Your task to perform on an android device: install app "eBay: The shopping marketplace" Image 0: 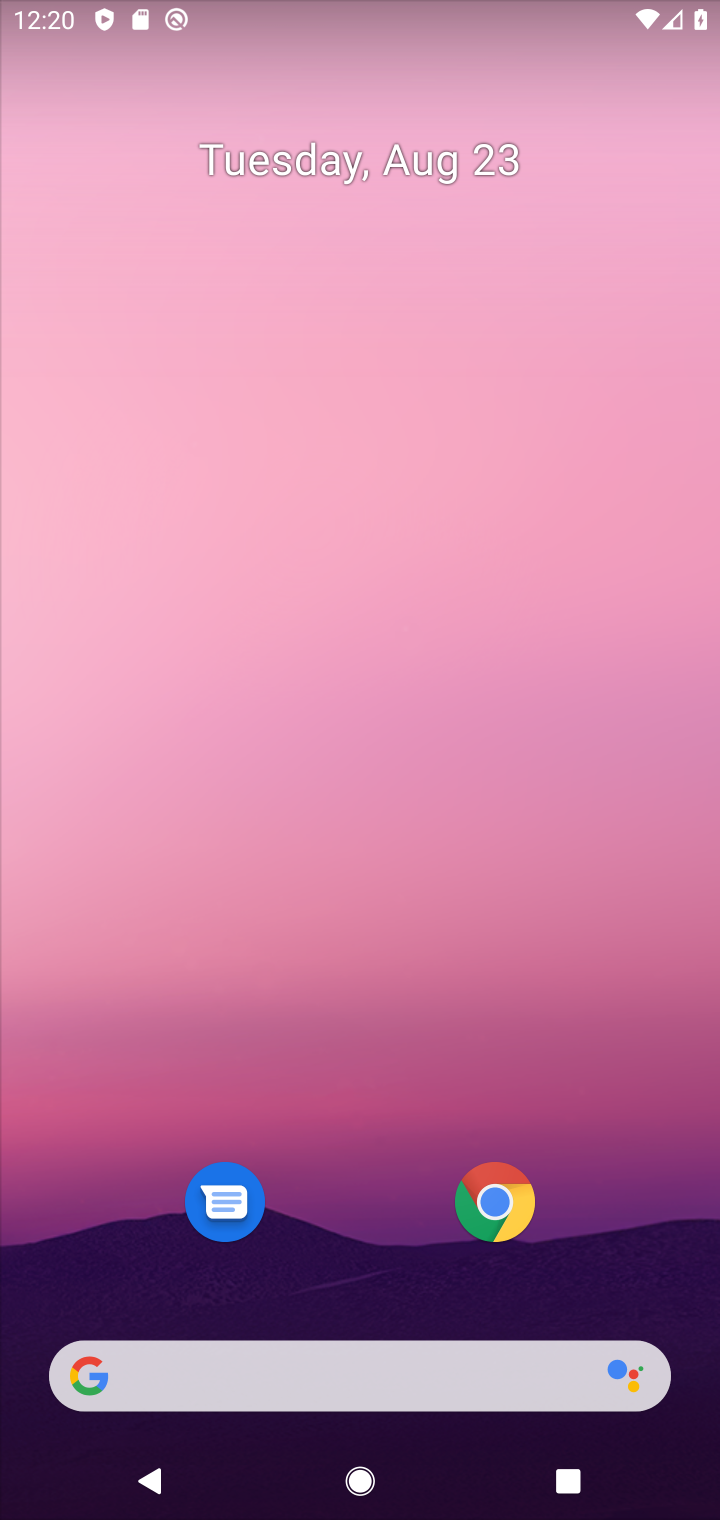
Step 0: drag from (360, 780) to (230, 248)
Your task to perform on an android device: install app "eBay: The shopping marketplace" Image 1: 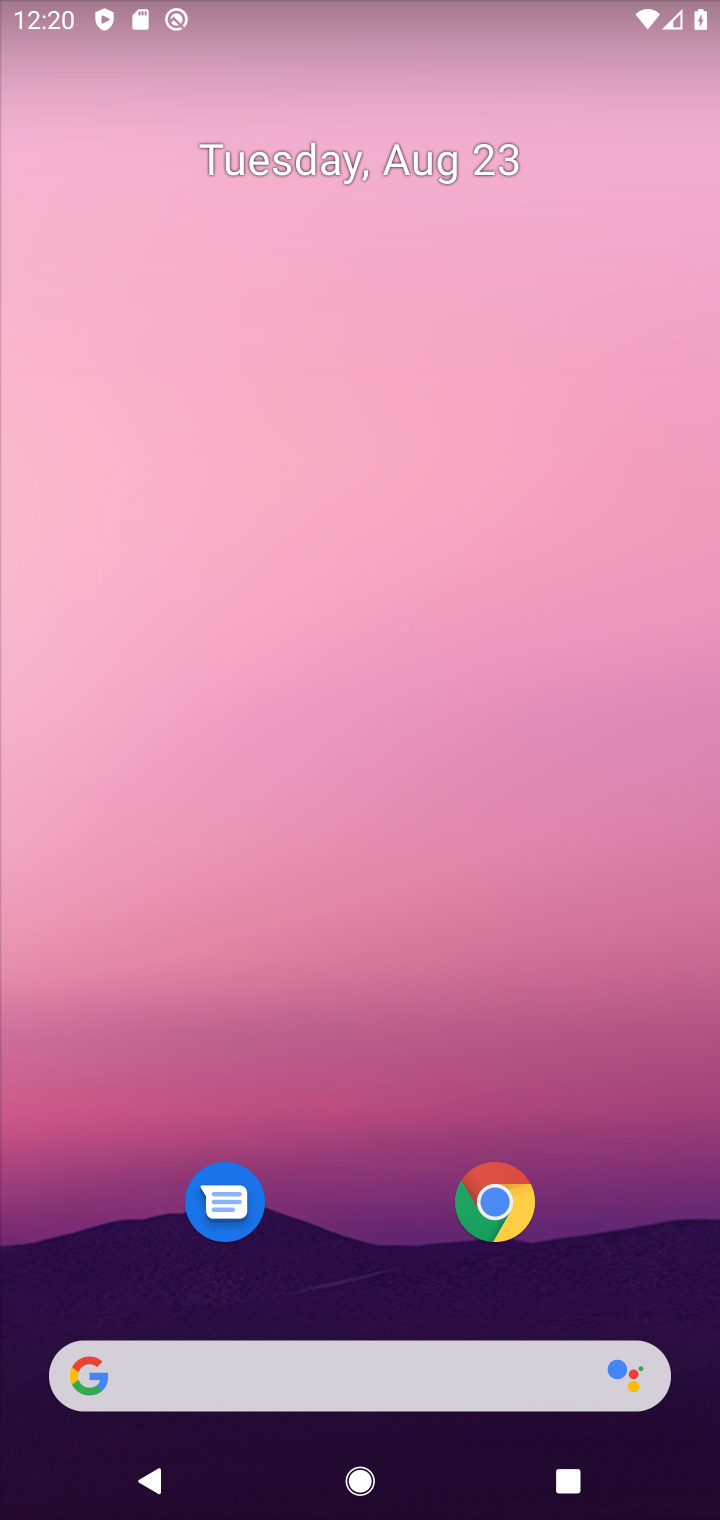
Step 1: drag from (353, 1355) to (181, 239)
Your task to perform on an android device: install app "eBay: The shopping marketplace" Image 2: 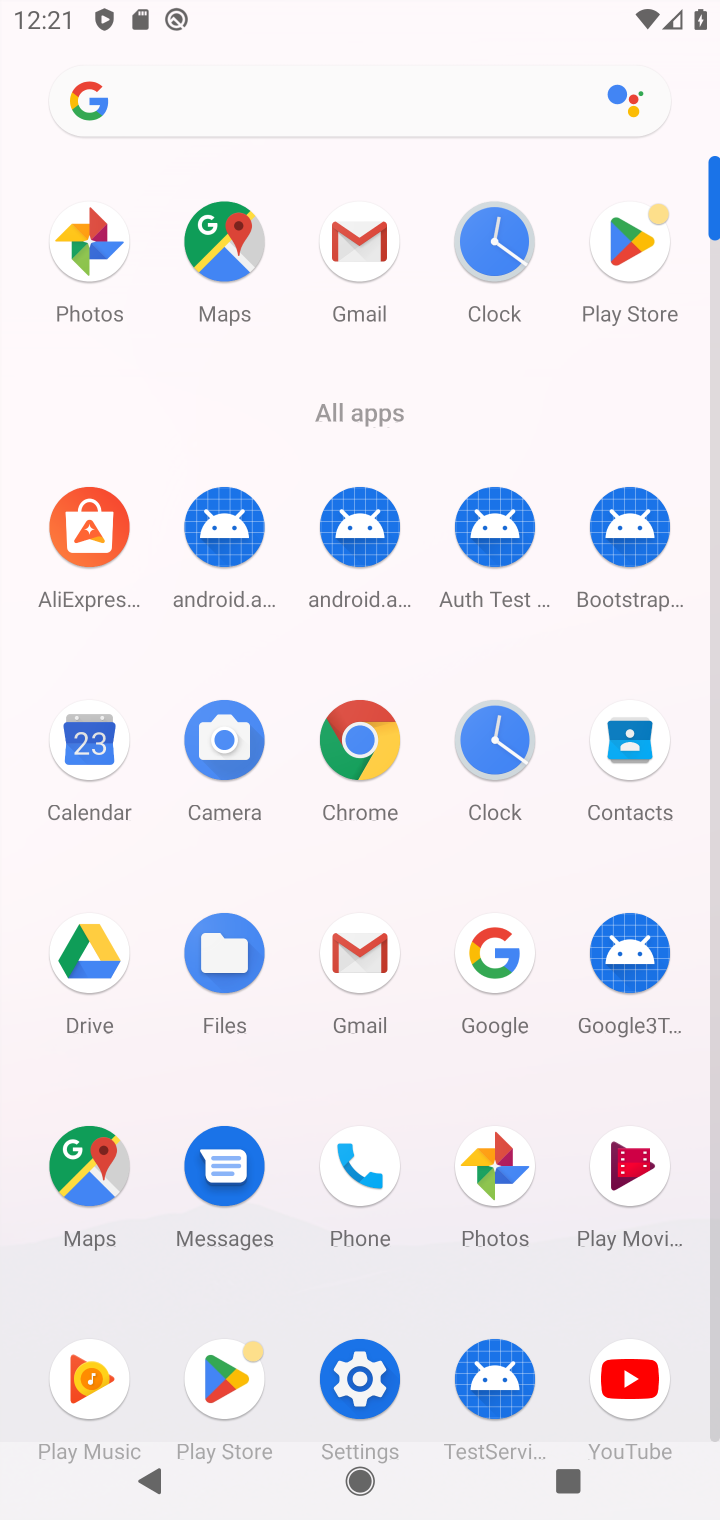
Step 2: click (349, 720)
Your task to perform on an android device: install app "eBay: The shopping marketplace" Image 3: 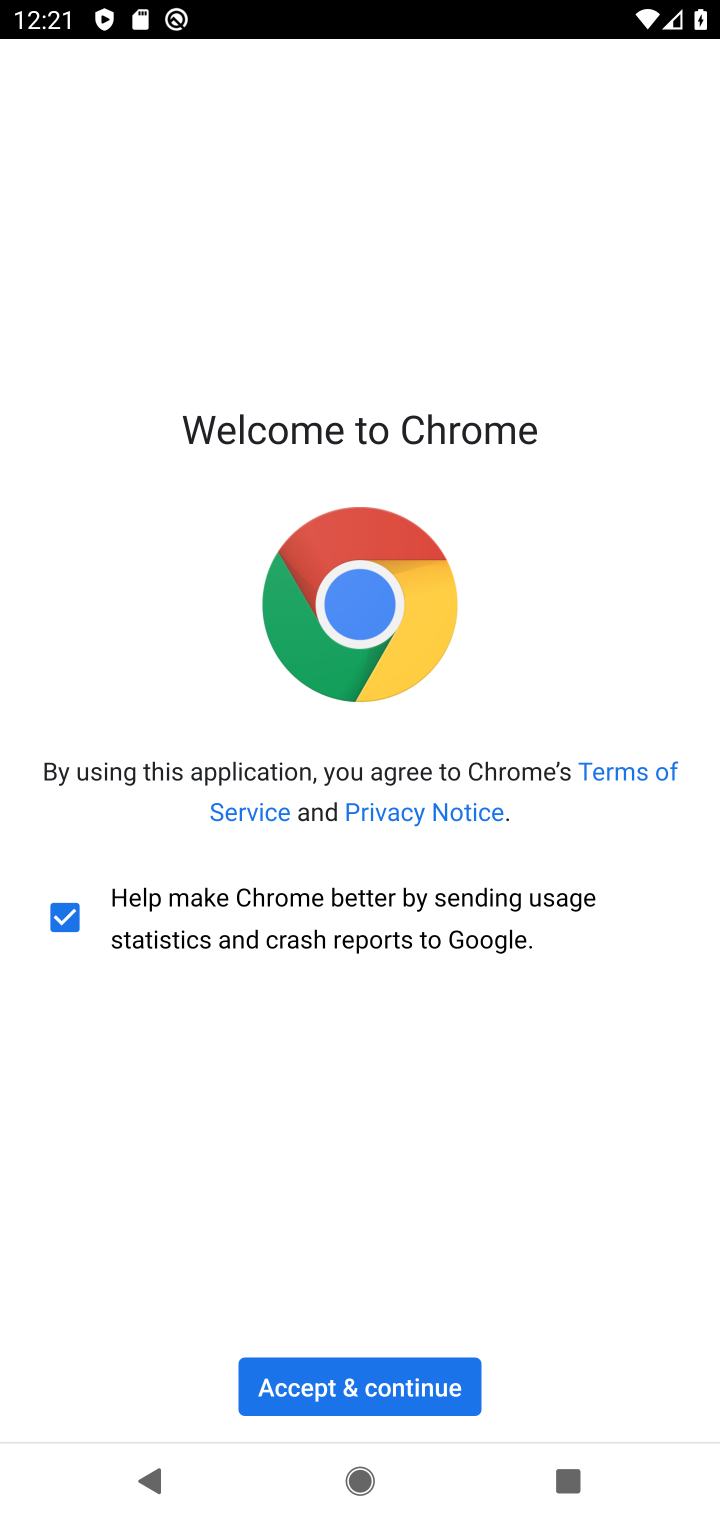
Step 3: press home button
Your task to perform on an android device: install app "eBay: The shopping marketplace" Image 4: 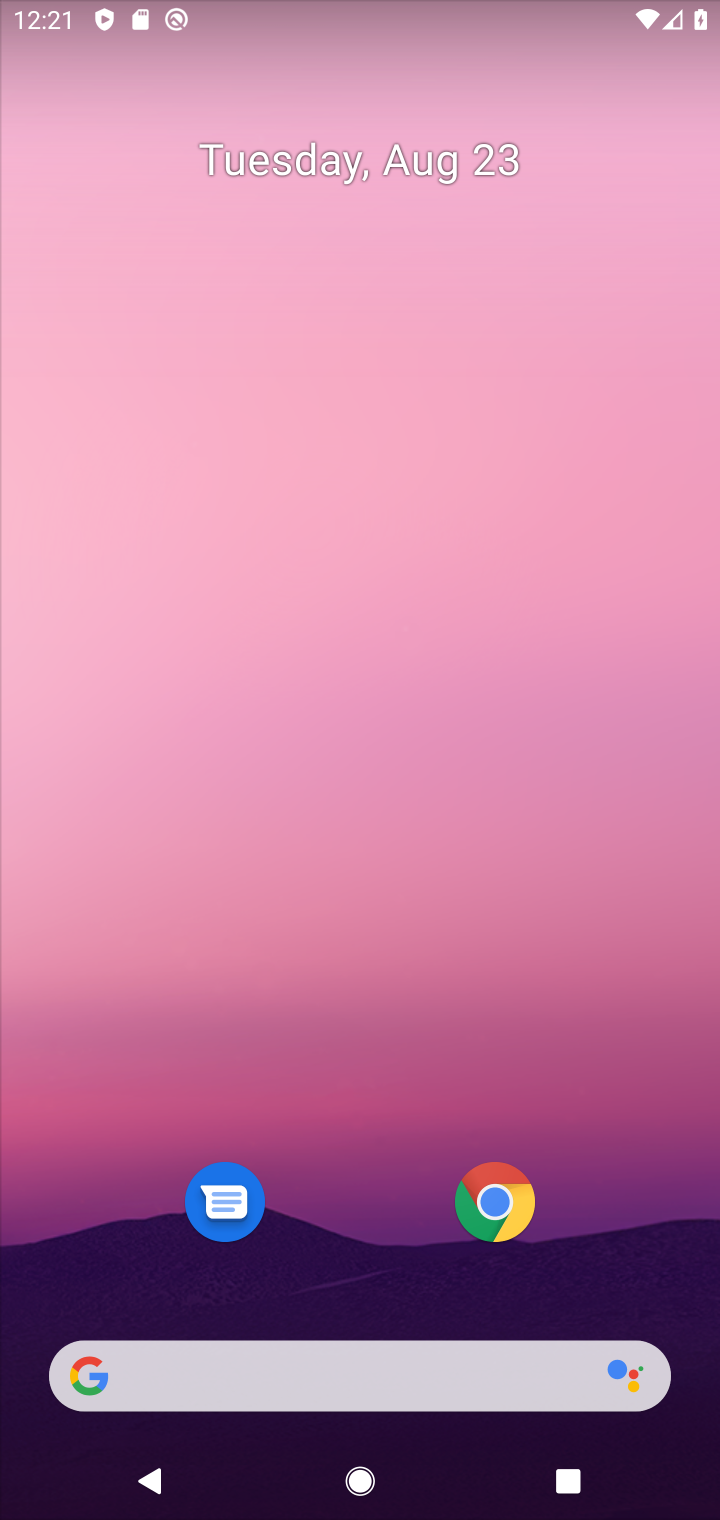
Step 4: drag from (354, 745) to (347, 568)
Your task to perform on an android device: install app "eBay: The shopping marketplace" Image 5: 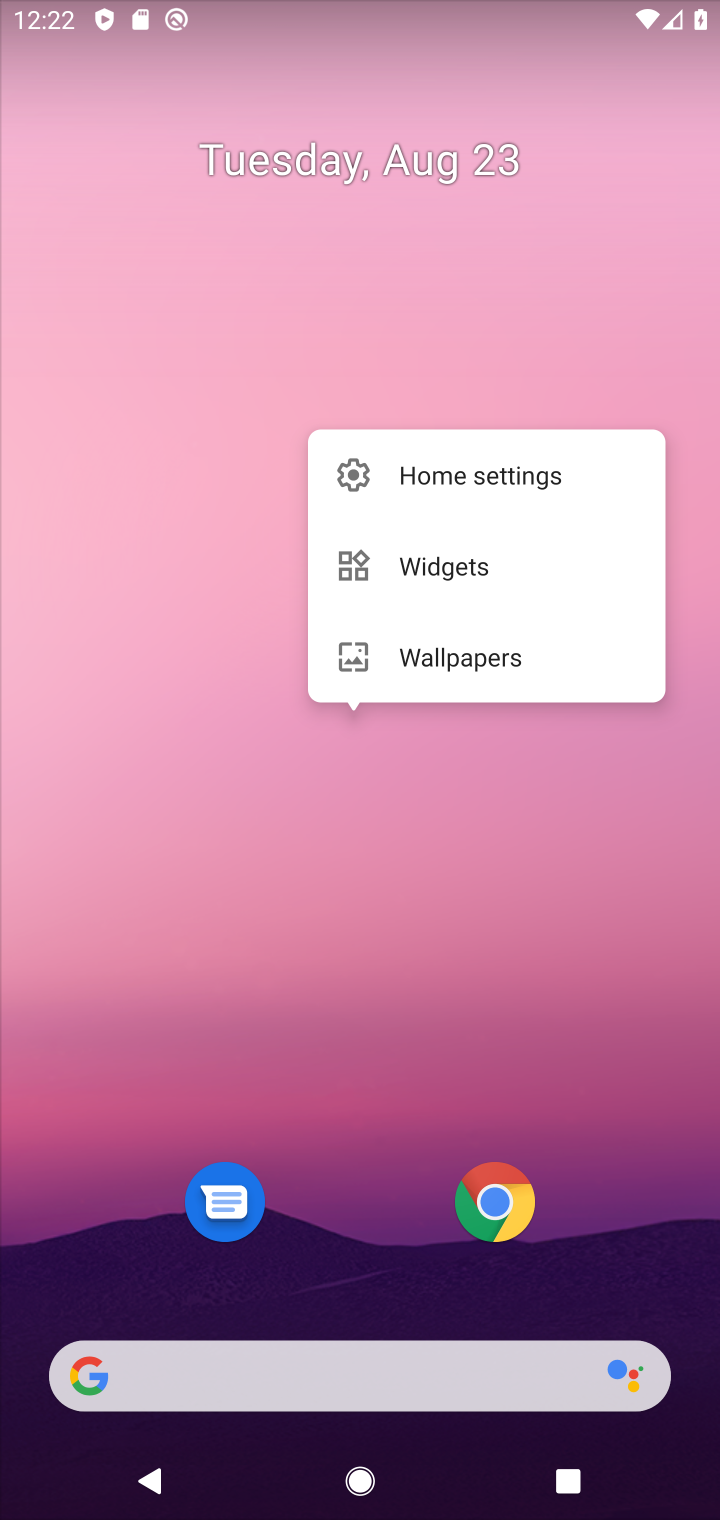
Step 5: drag from (314, 1140) to (219, 135)
Your task to perform on an android device: install app "eBay: The shopping marketplace" Image 6: 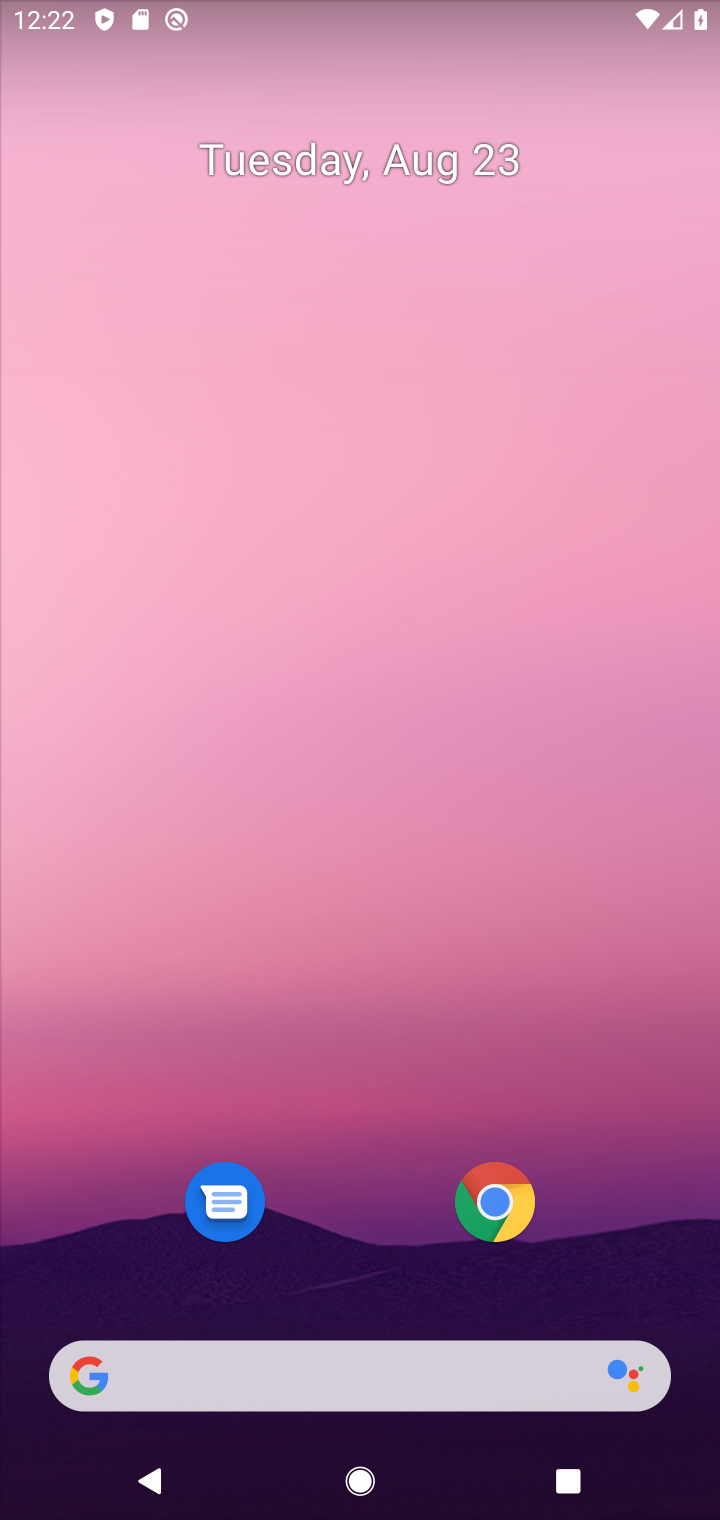
Step 6: drag from (376, 1360) to (145, 575)
Your task to perform on an android device: install app "eBay: The shopping marketplace" Image 7: 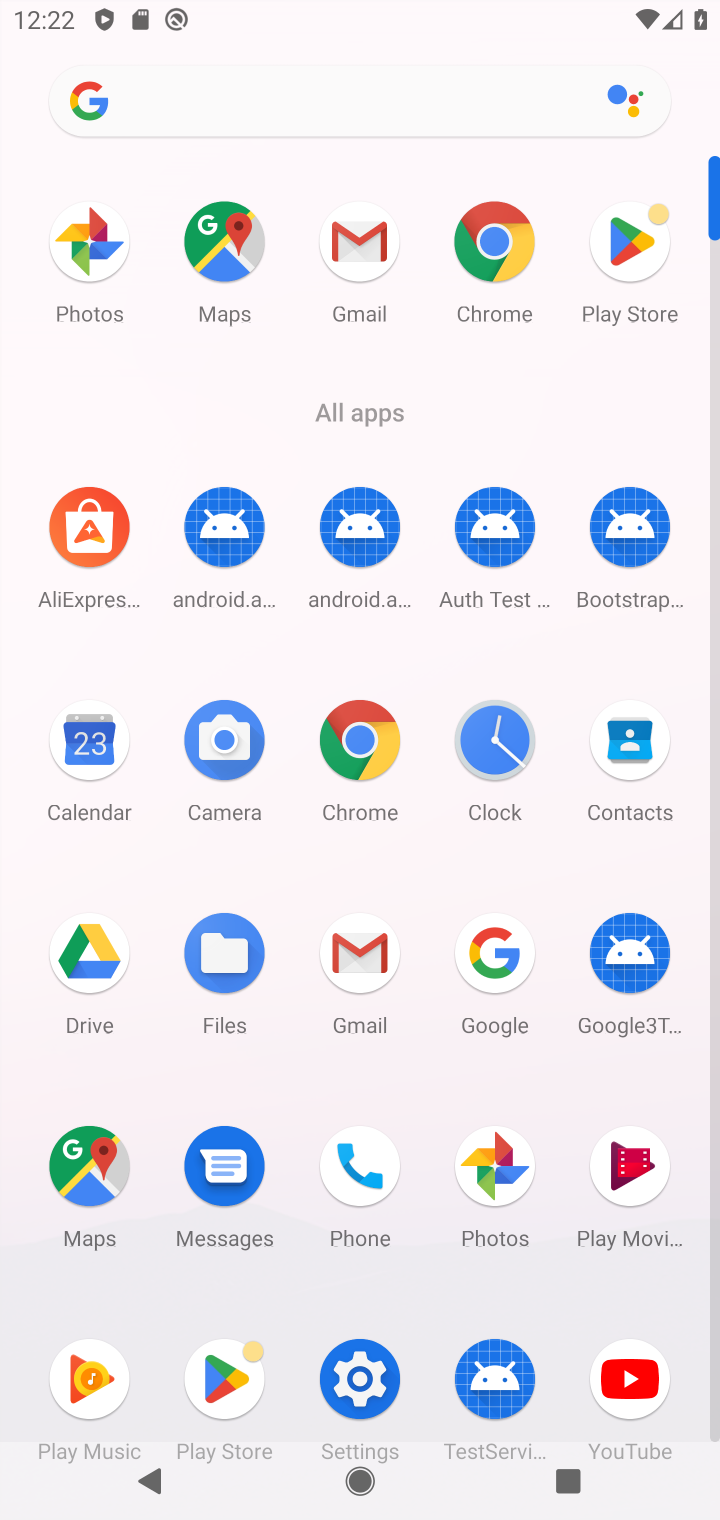
Step 7: click (617, 261)
Your task to perform on an android device: install app "eBay: The shopping marketplace" Image 8: 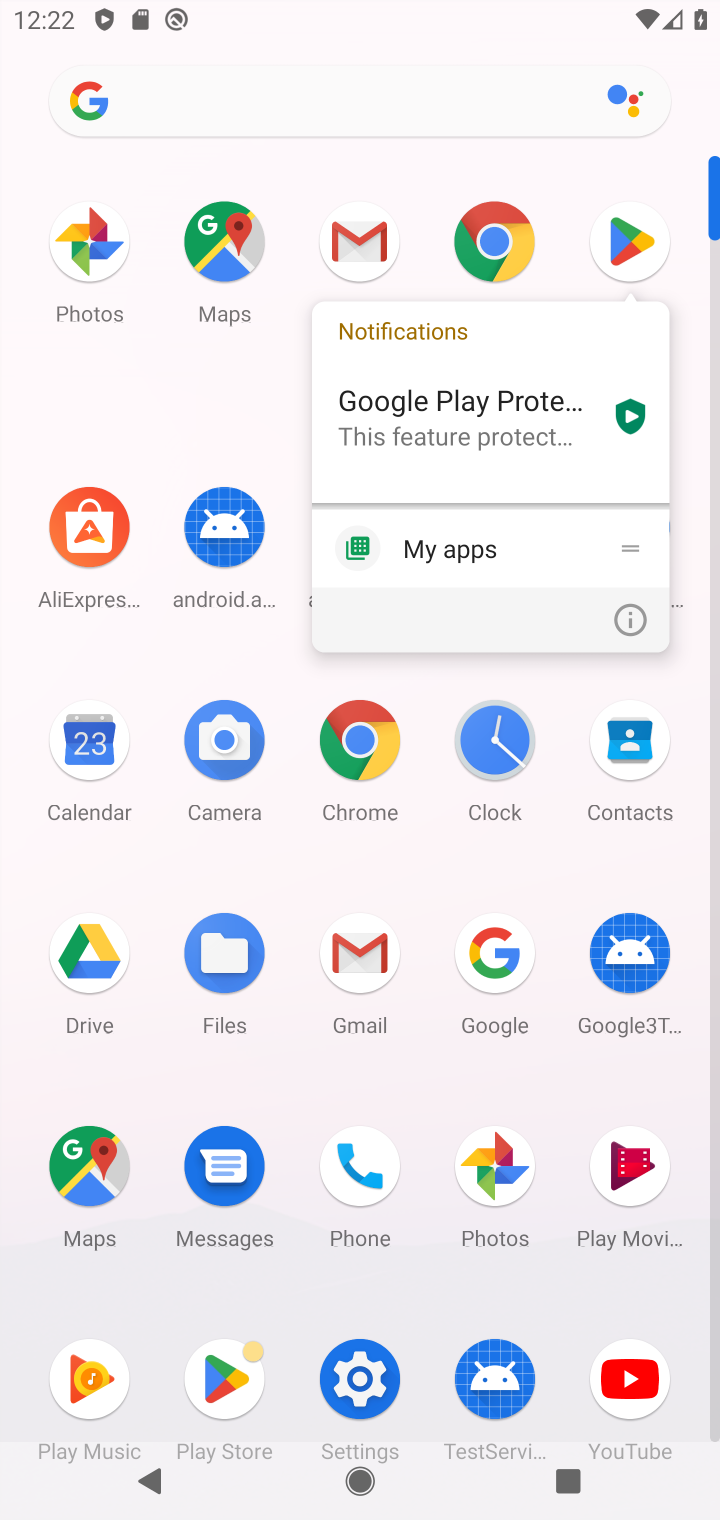
Step 8: click (617, 261)
Your task to perform on an android device: install app "eBay: The shopping marketplace" Image 9: 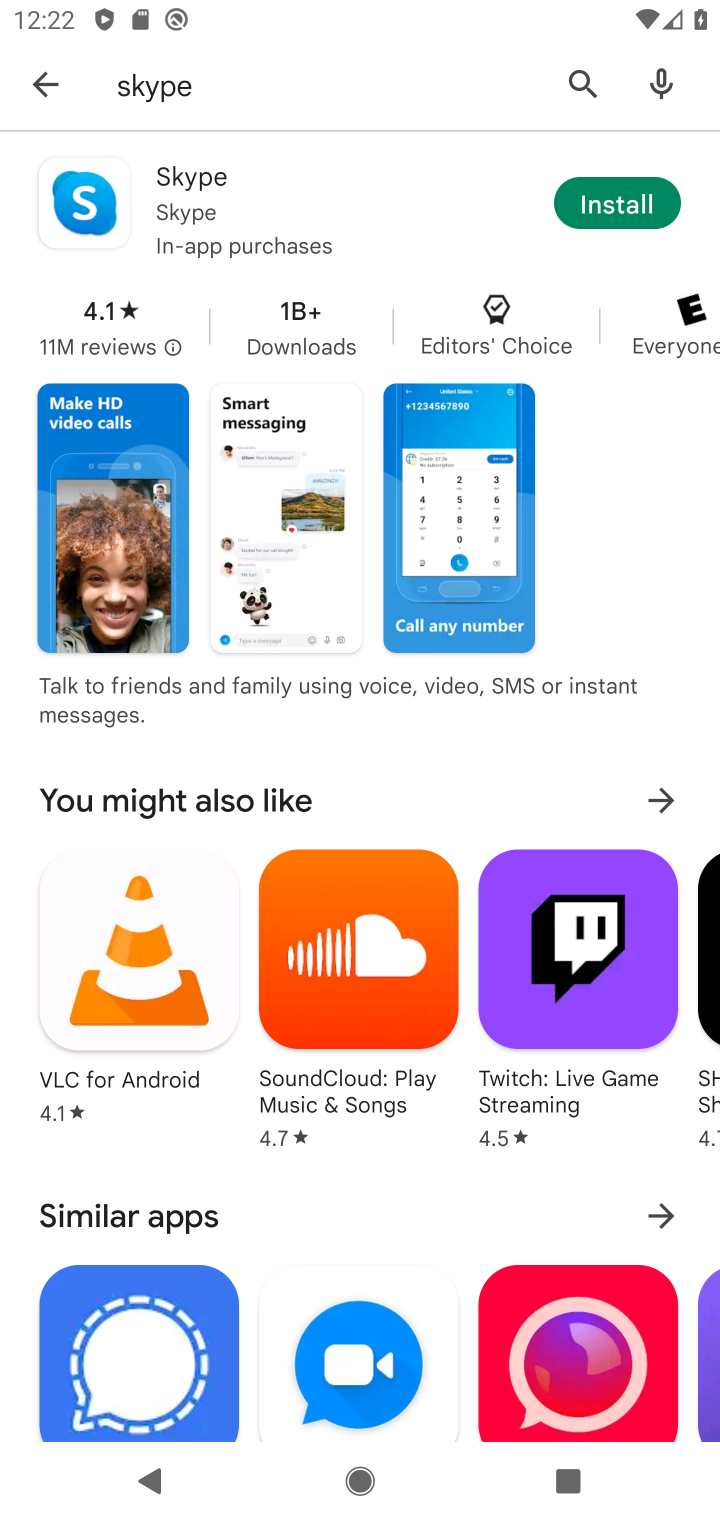
Step 9: click (579, 103)
Your task to perform on an android device: install app "eBay: The shopping marketplace" Image 10: 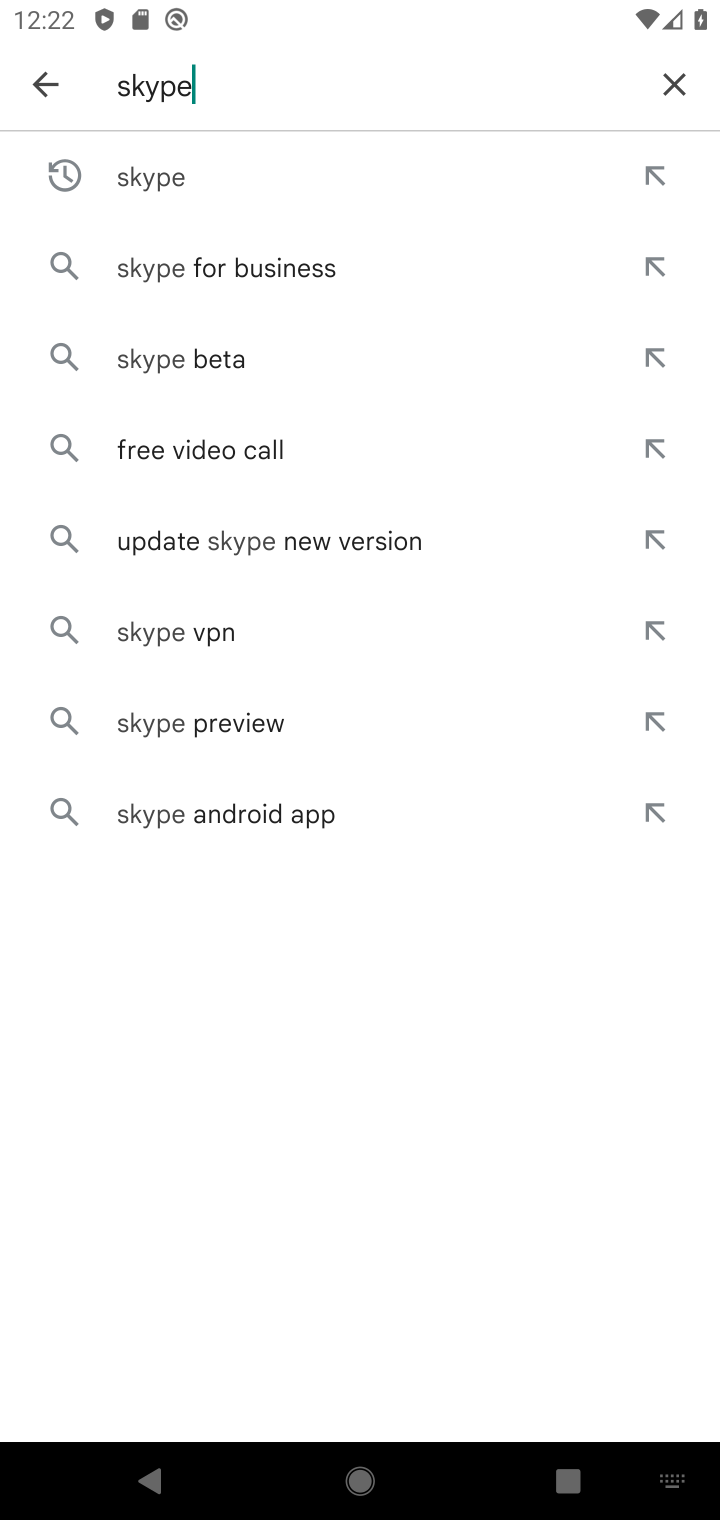
Step 10: click (685, 87)
Your task to perform on an android device: install app "eBay: The shopping marketplace" Image 11: 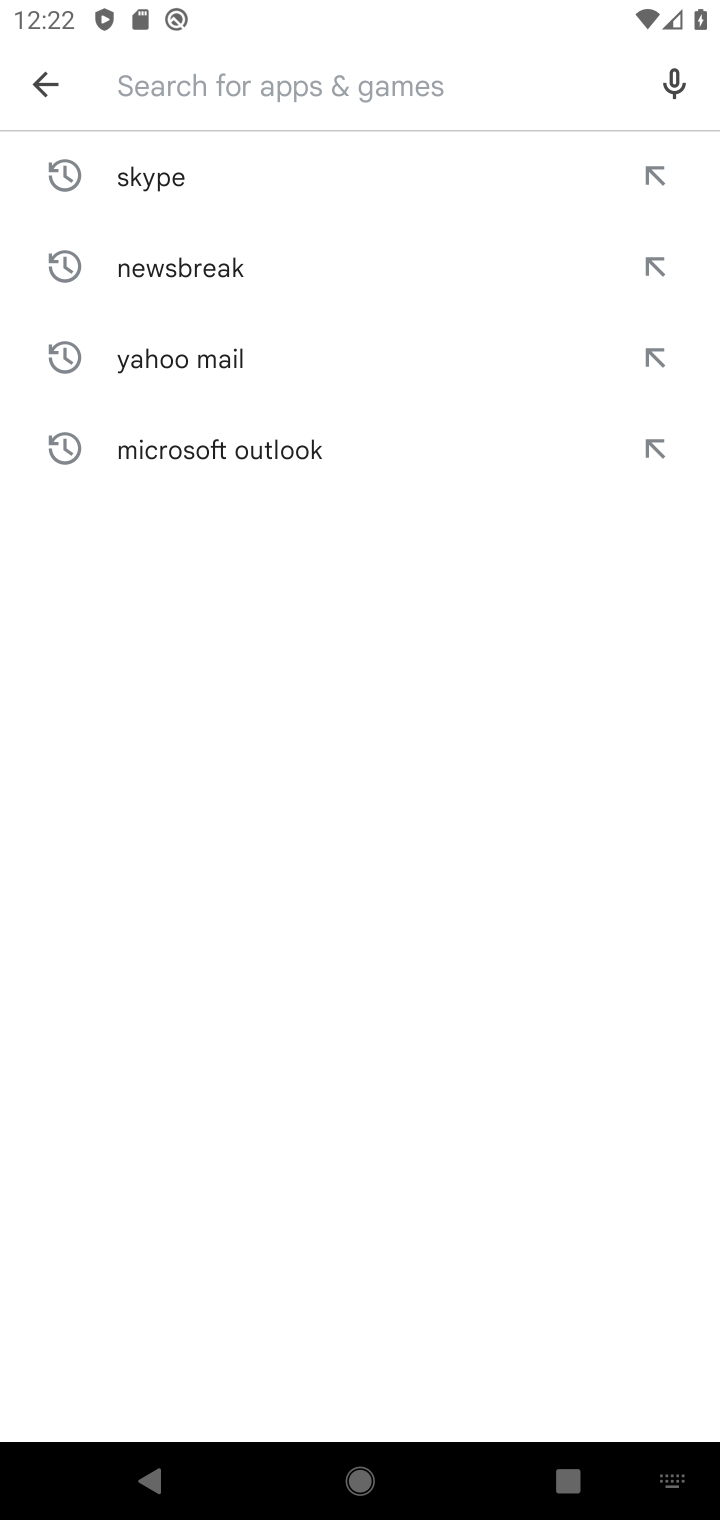
Step 11: type "ebay"
Your task to perform on an android device: install app "eBay: The shopping marketplace" Image 12: 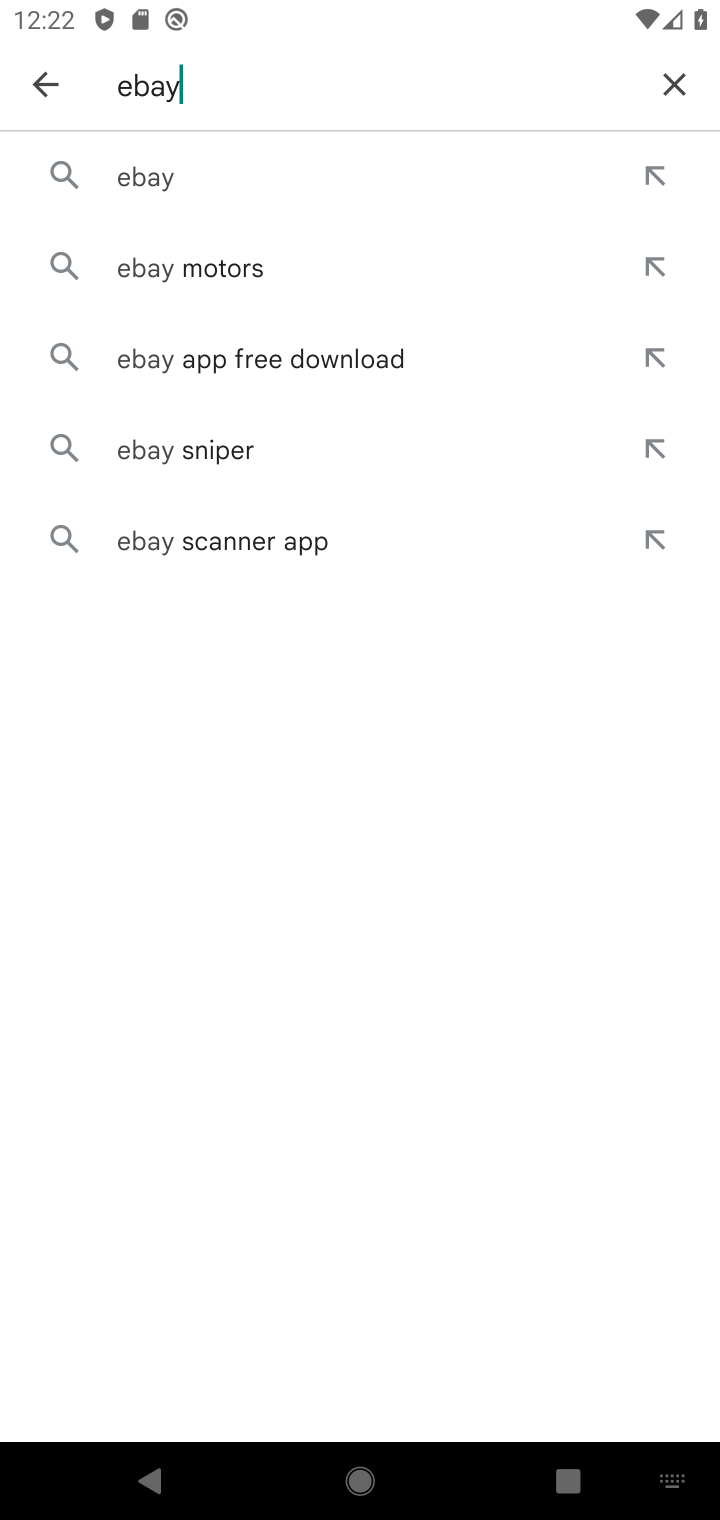
Step 12: click (244, 200)
Your task to perform on an android device: install app "eBay: The shopping marketplace" Image 13: 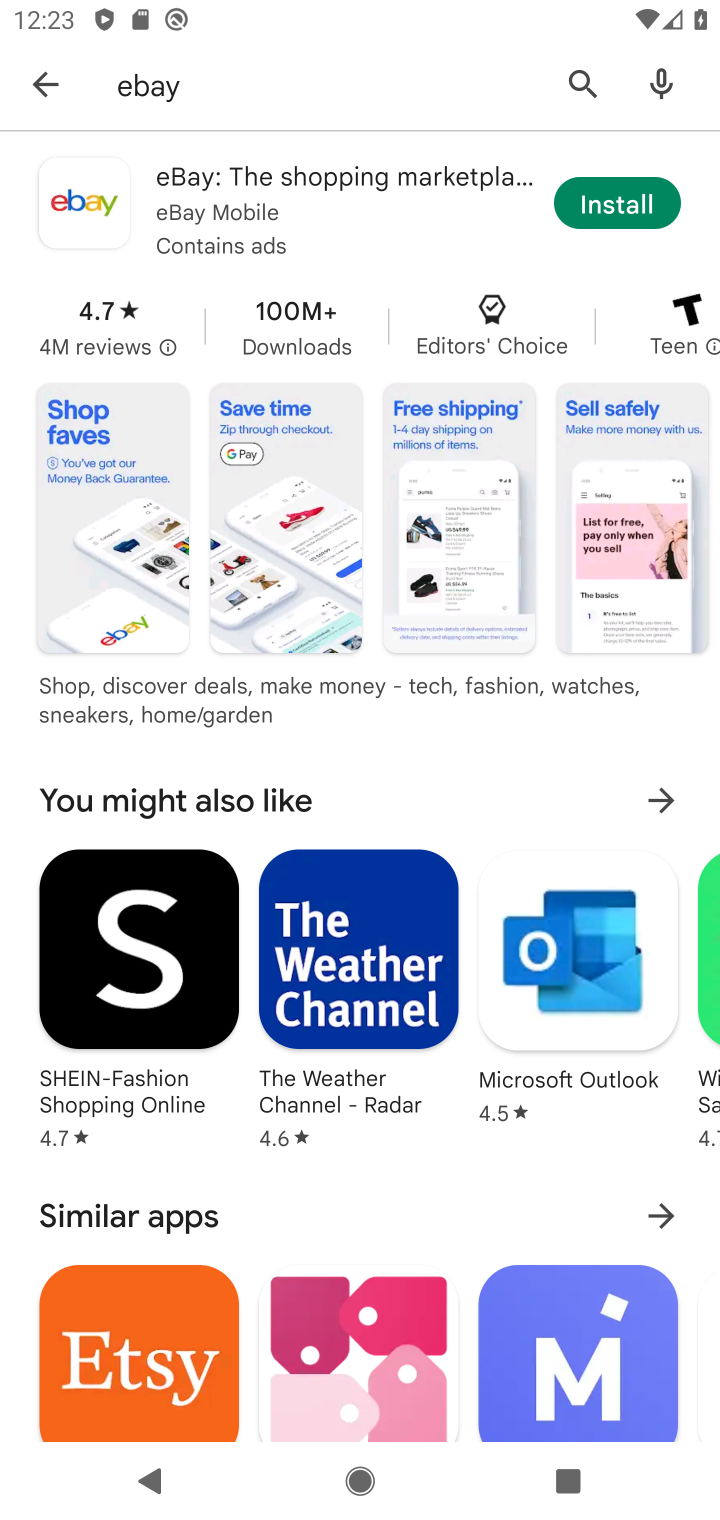
Step 13: click (612, 185)
Your task to perform on an android device: install app "eBay: The shopping marketplace" Image 14: 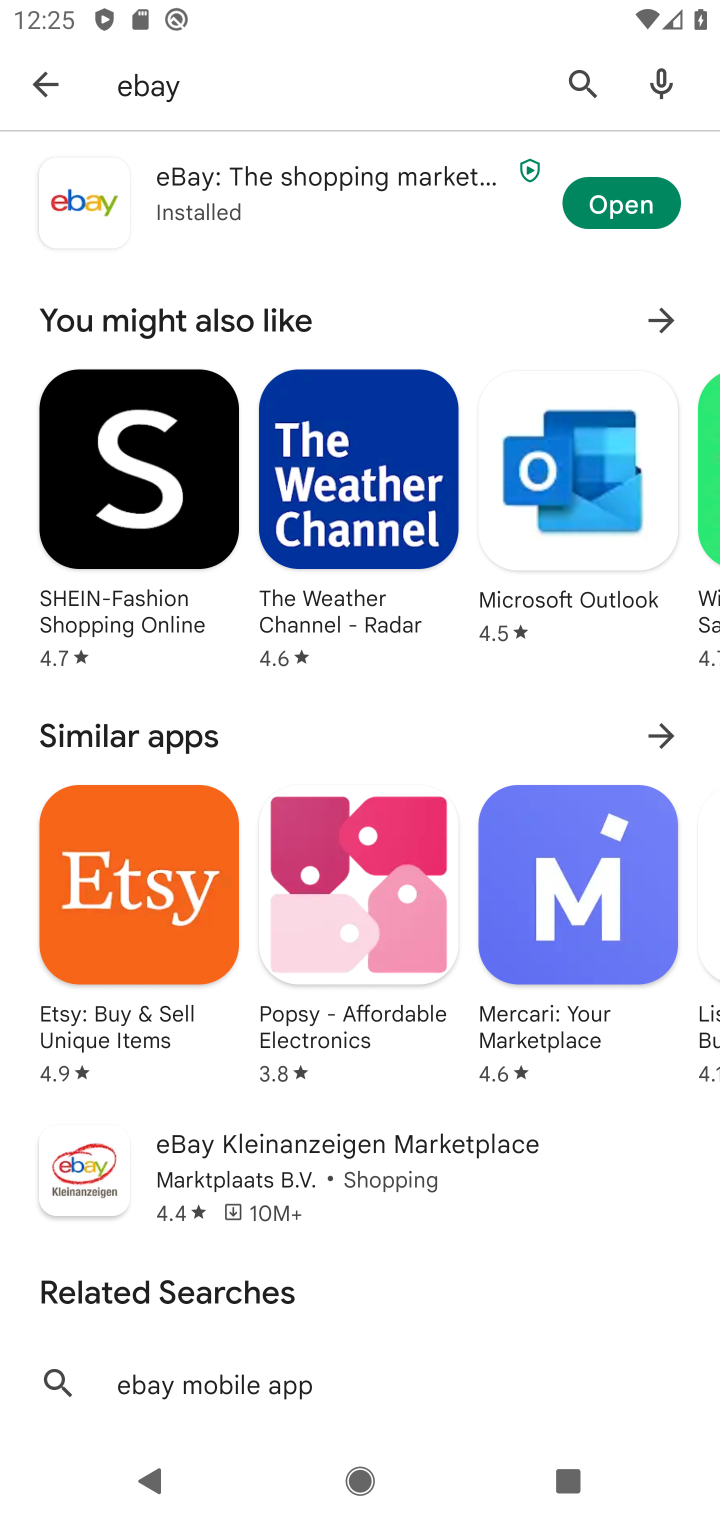
Step 14: task complete